Your task to perform on an android device: clear history in the chrome app Image 0: 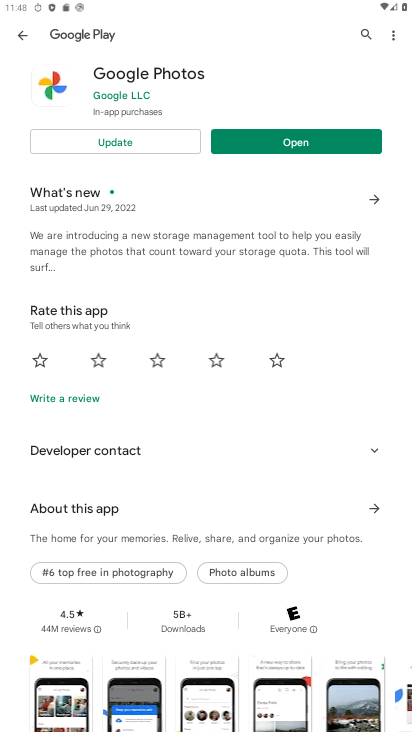
Step 0: press home button
Your task to perform on an android device: clear history in the chrome app Image 1: 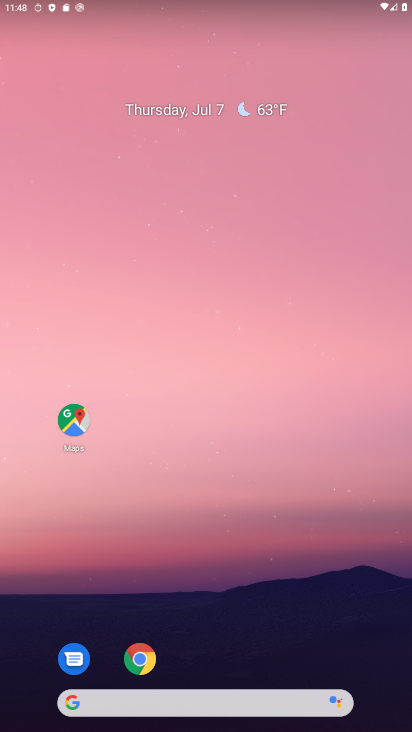
Step 1: drag from (225, 654) to (268, 27)
Your task to perform on an android device: clear history in the chrome app Image 2: 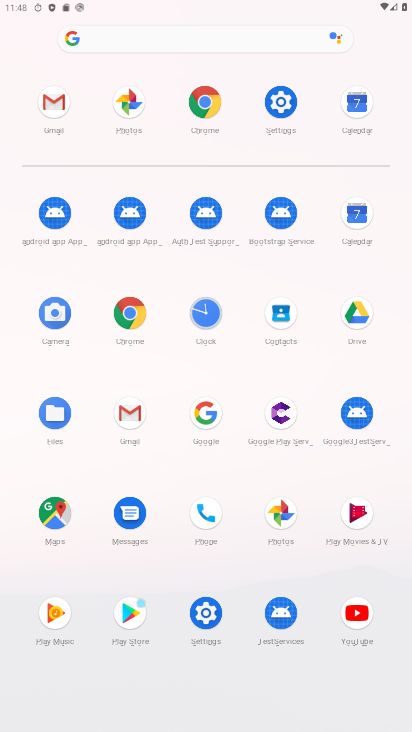
Step 2: click (132, 332)
Your task to perform on an android device: clear history in the chrome app Image 3: 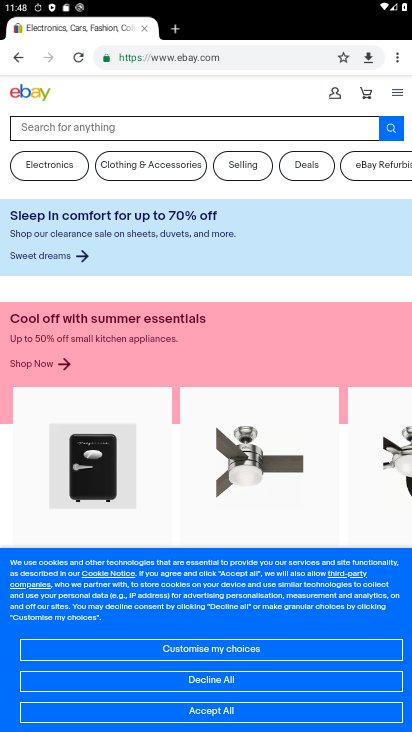
Step 3: click (401, 55)
Your task to perform on an android device: clear history in the chrome app Image 4: 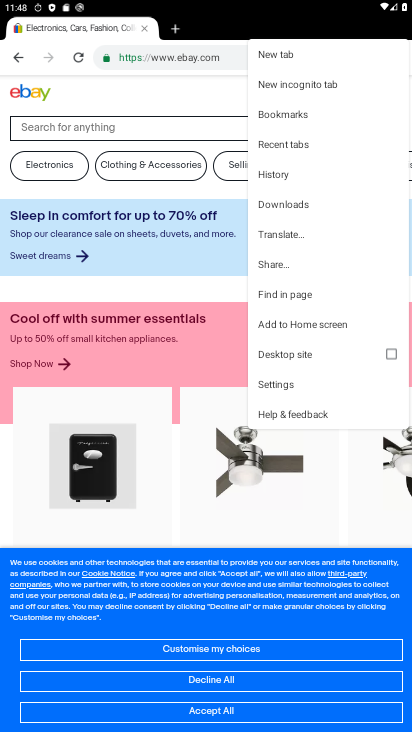
Step 4: click (306, 173)
Your task to perform on an android device: clear history in the chrome app Image 5: 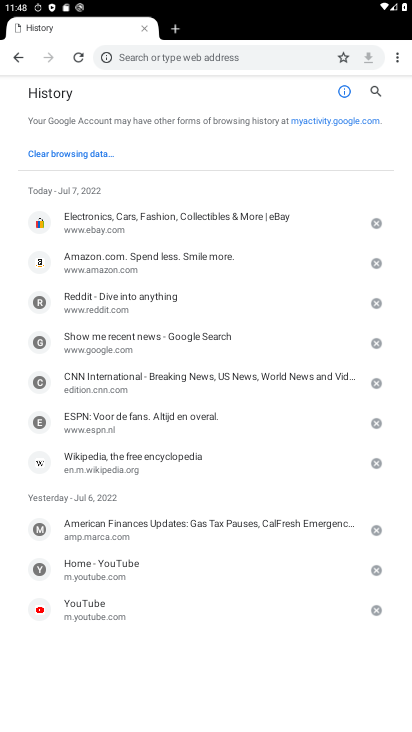
Step 5: click (72, 150)
Your task to perform on an android device: clear history in the chrome app Image 6: 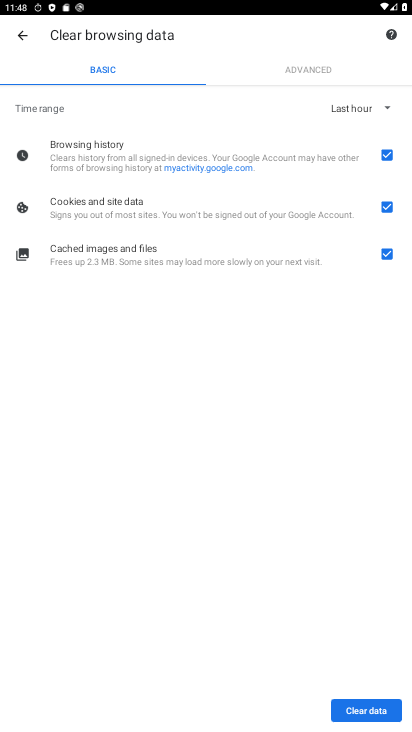
Step 6: click (355, 105)
Your task to perform on an android device: clear history in the chrome app Image 7: 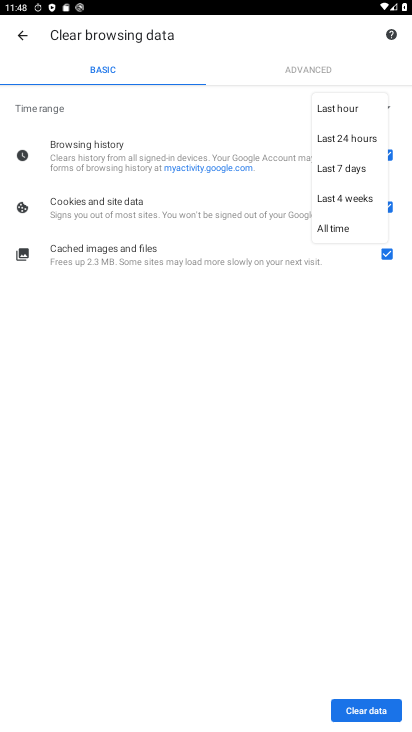
Step 7: click (346, 223)
Your task to perform on an android device: clear history in the chrome app Image 8: 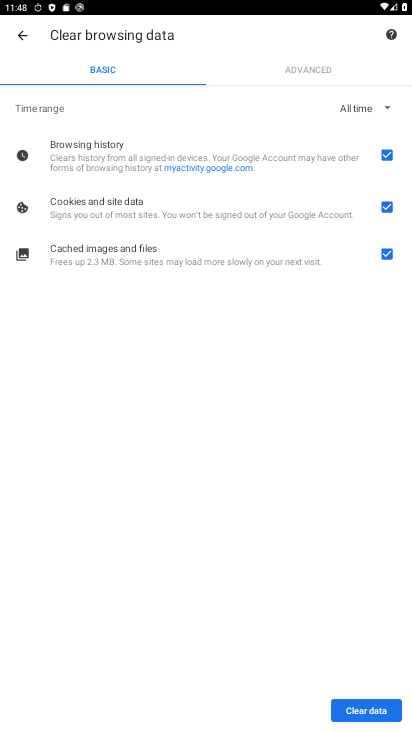
Step 8: click (367, 711)
Your task to perform on an android device: clear history in the chrome app Image 9: 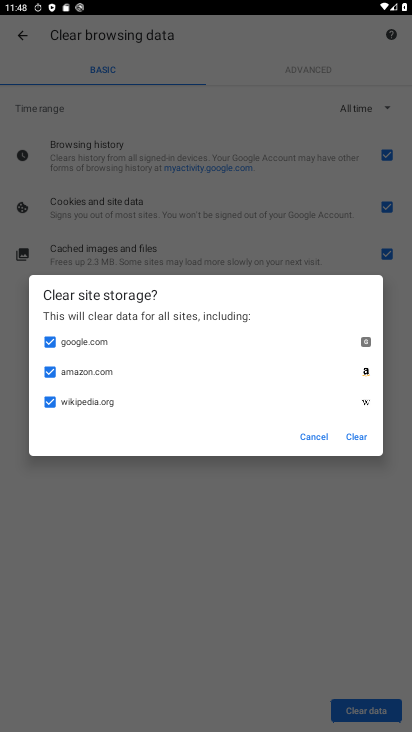
Step 9: click (357, 436)
Your task to perform on an android device: clear history in the chrome app Image 10: 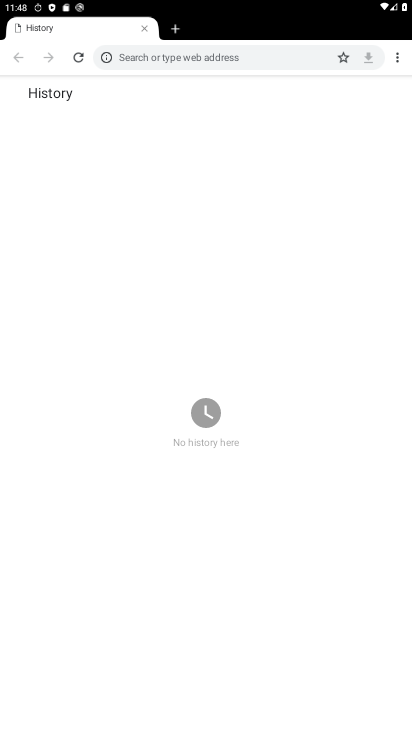
Step 10: task complete